Your task to perform on an android device: visit the assistant section in the google photos Image 0: 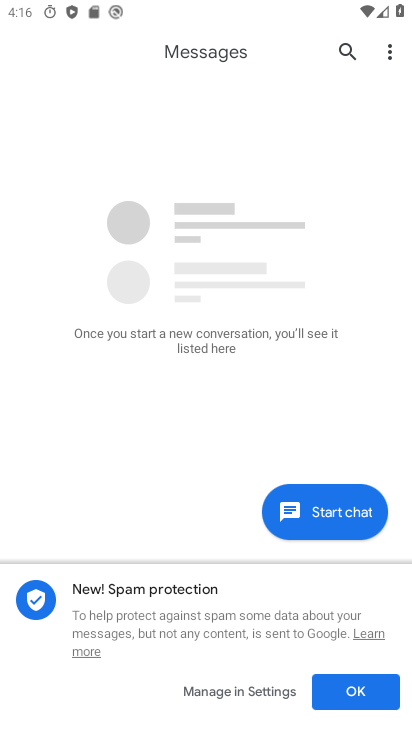
Step 0: press home button
Your task to perform on an android device: visit the assistant section in the google photos Image 1: 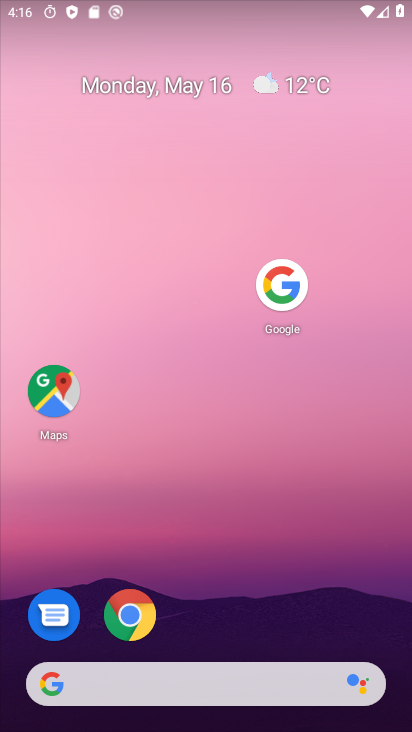
Step 1: drag from (224, 648) to (199, 12)
Your task to perform on an android device: visit the assistant section in the google photos Image 2: 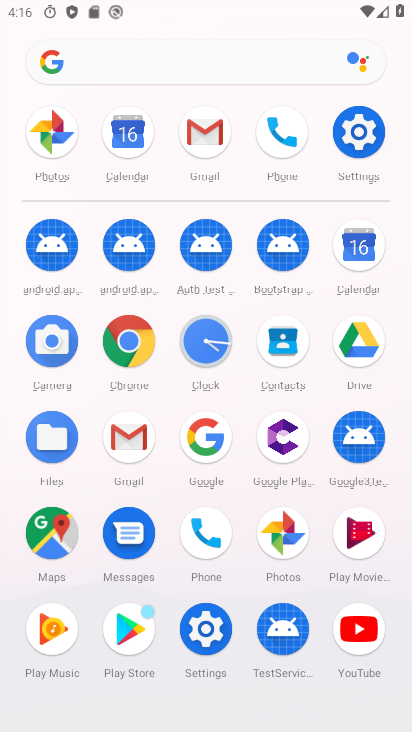
Step 2: click (286, 533)
Your task to perform on an android device: visit the assistant section in the google photos Image 3: 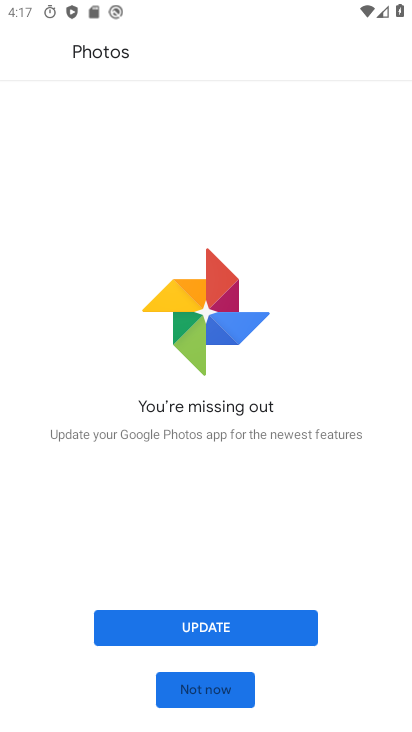
Step 3: click (242, 692)
Your task to perform on an android device: visit the assistant section in the google photos Image 4: 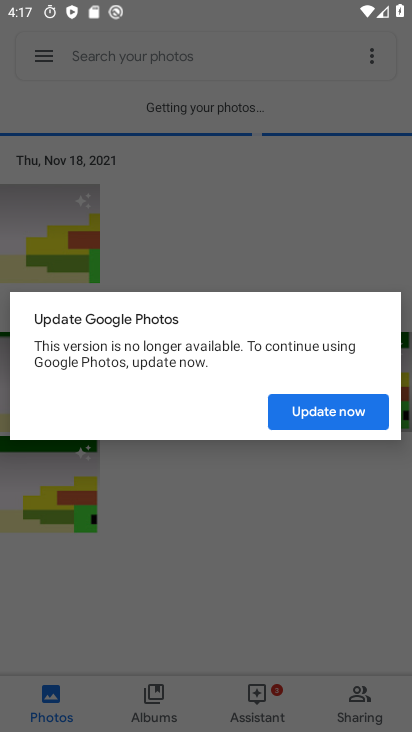
Step 4: click (338, 412)
Your task to perform on an android device: visit the assistant section in the google photos Image 5: 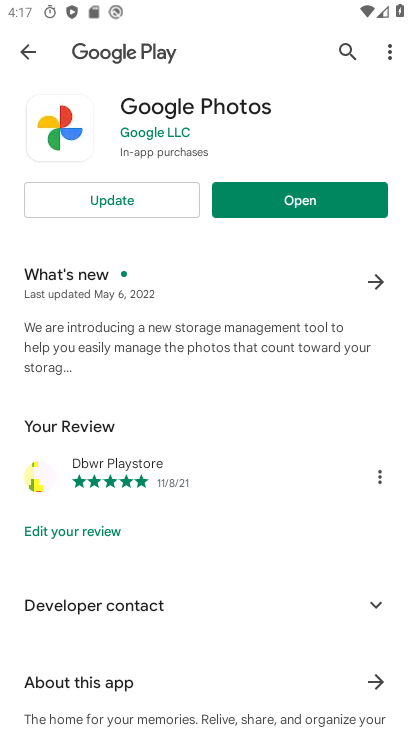
Step 5: click (134, 198)
Your task to perform on an android device: visit the assistant section in the google photos Image 6: 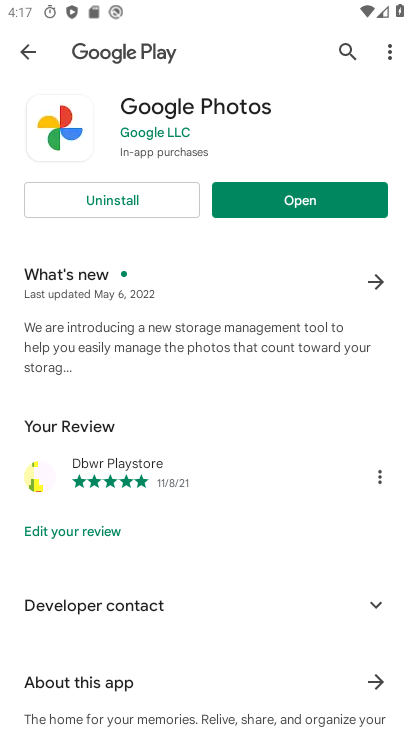
Step 6: click (273, 204)
Your task to perform on an android device: visit the assistant section in the google photos Image 7: 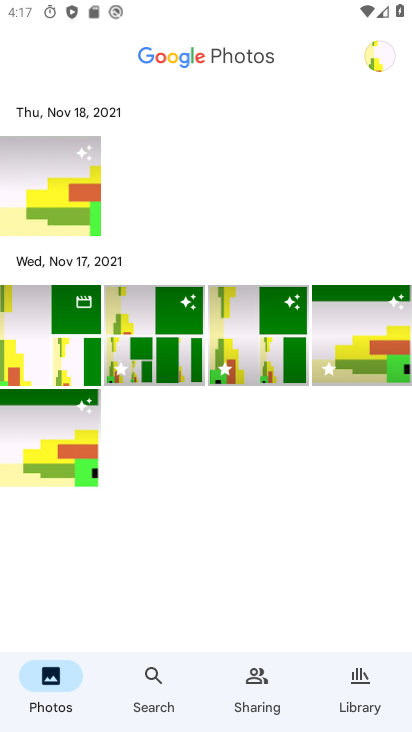
Step 7: click (365, 62)
Your task to perform on an android device: visit the assistant section in the google photos Image 8: 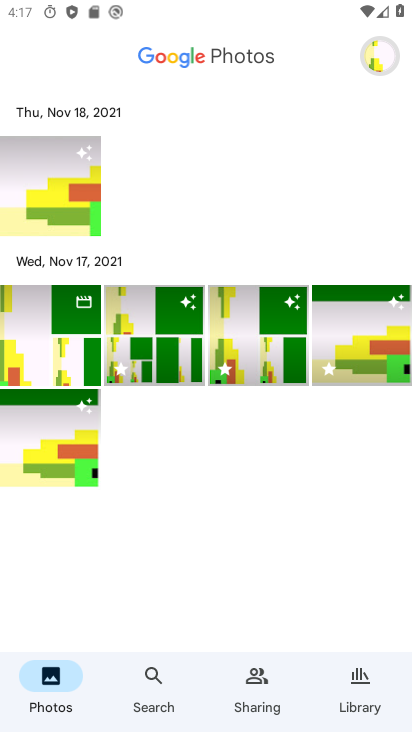
Step 8: task complete